Your task to perform on an android device: check android version Image 0: 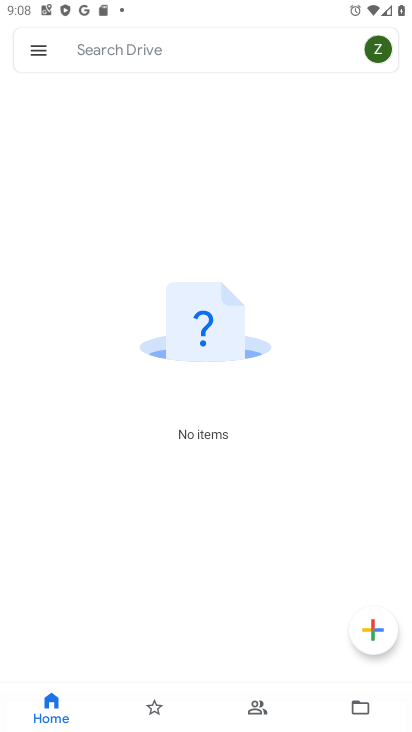
Step 0: press home button
Your task to perform on an android device: check android version Image 1: 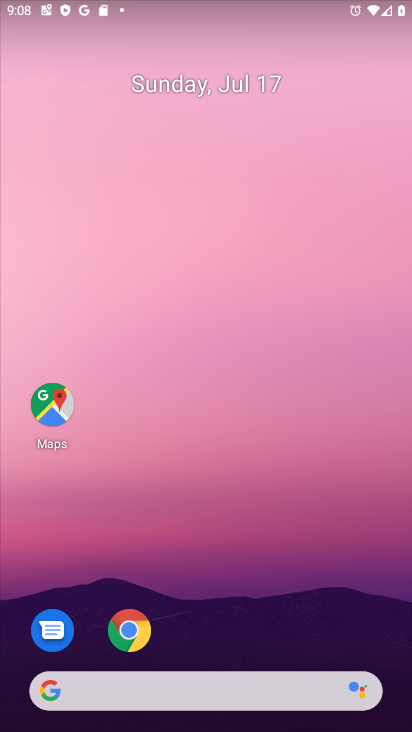
Step 1: drag from (169, 629) to (187, 168)
Your task to perform on an android device: check android version Image 2: 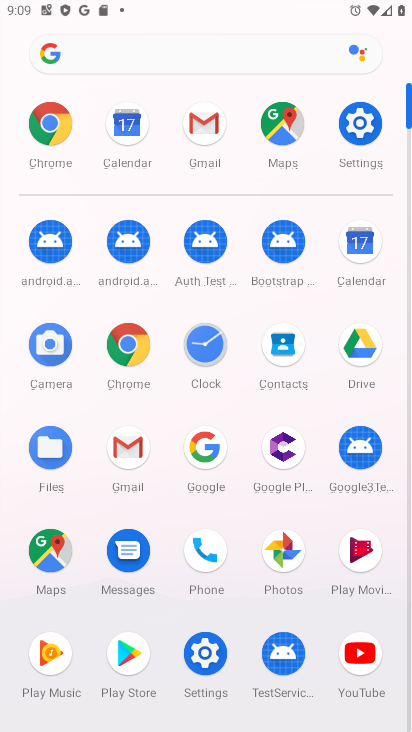
Step 2: click (364, 124)
Your task to perform on an android device: check android version Image 3: 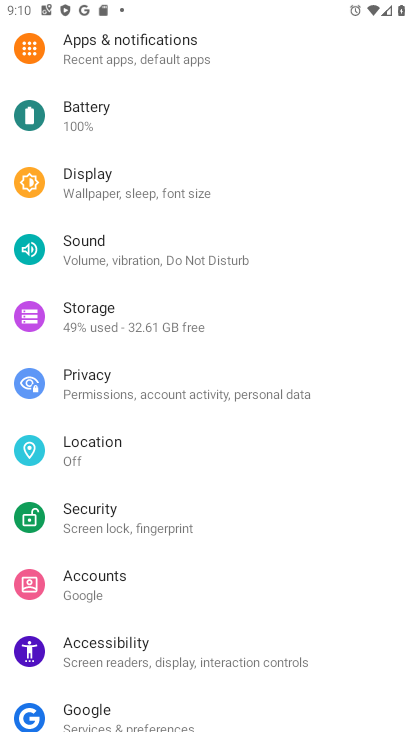
Step 3: drag from (145, 450) to (219, 1)
Your task to perform on an android device: check android version Image 4: 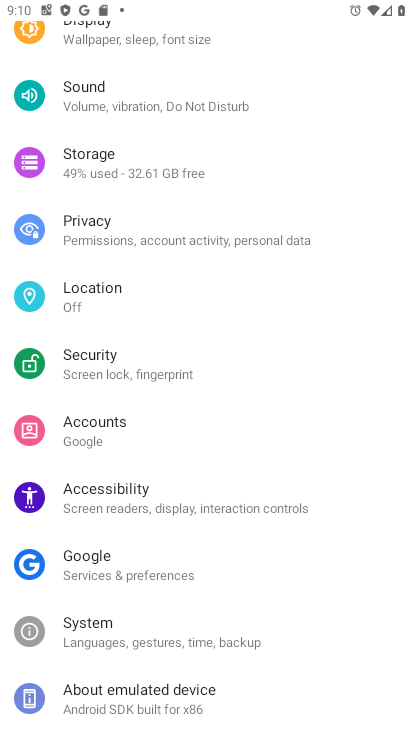
Step 4: click (107, 697)
Your task to perform on an android device: check android version Image 5: 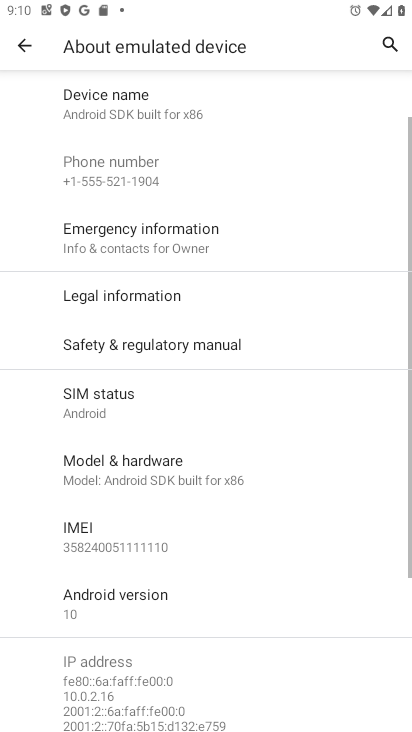
Step 5: click (124, 595)
Your task to perform on an android device: check android version Image 6: 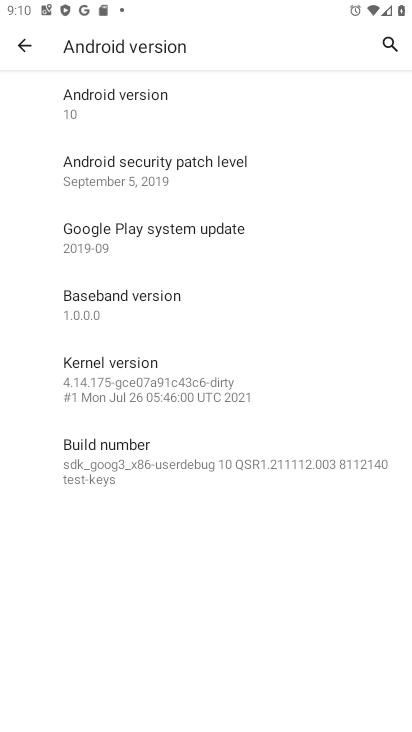
Step 6: task complete